Your task to perform on an android device: Empty the shopping cart on newegg.com. Search for "rayovac triple a" on newegg.com, select the first entry, and add it to the cart. Image 0: 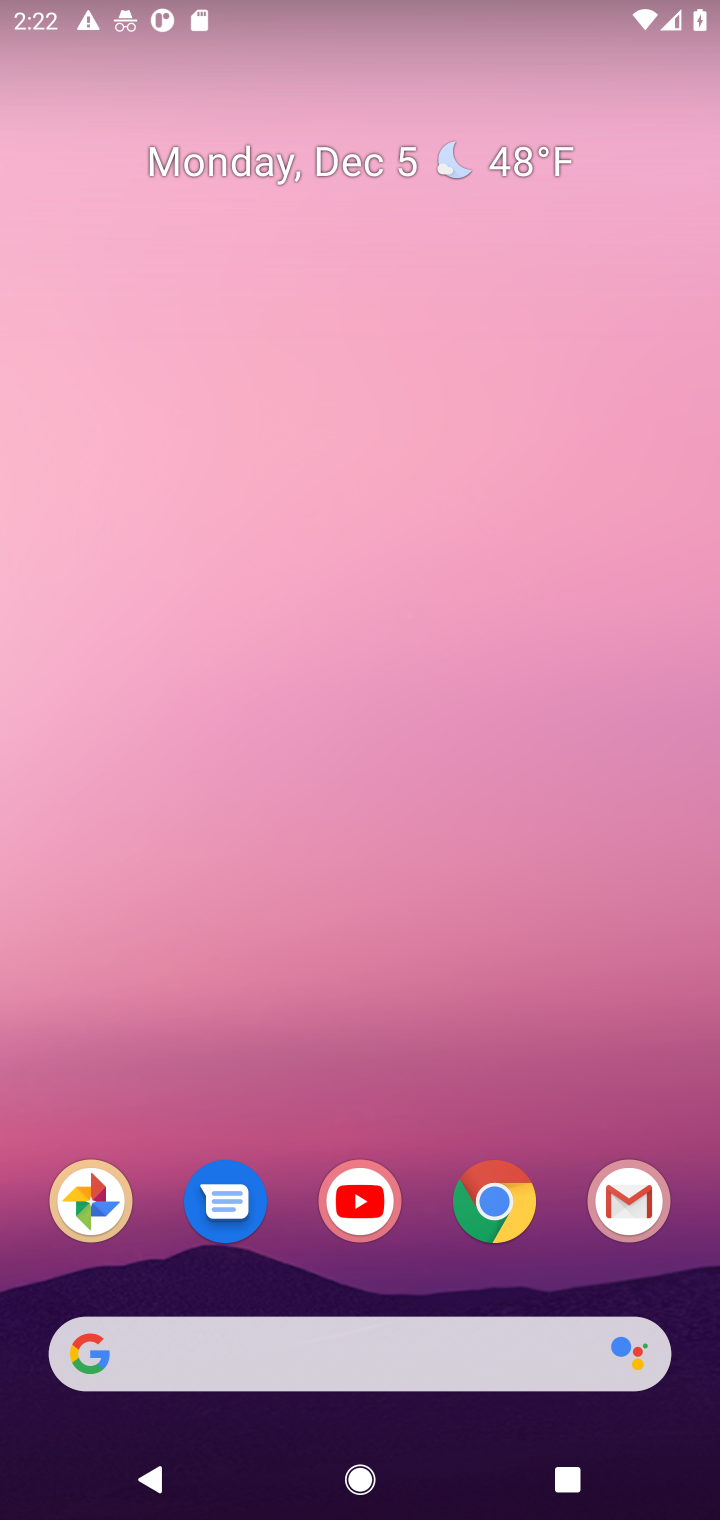
Step 0: click (517, 1211)
Your task to perform on an android device: Empty the shopping cart on newegg.com. Search for "rayovac triple a" on newegg.com, select the first entry, and add it to the cart. Image 1: 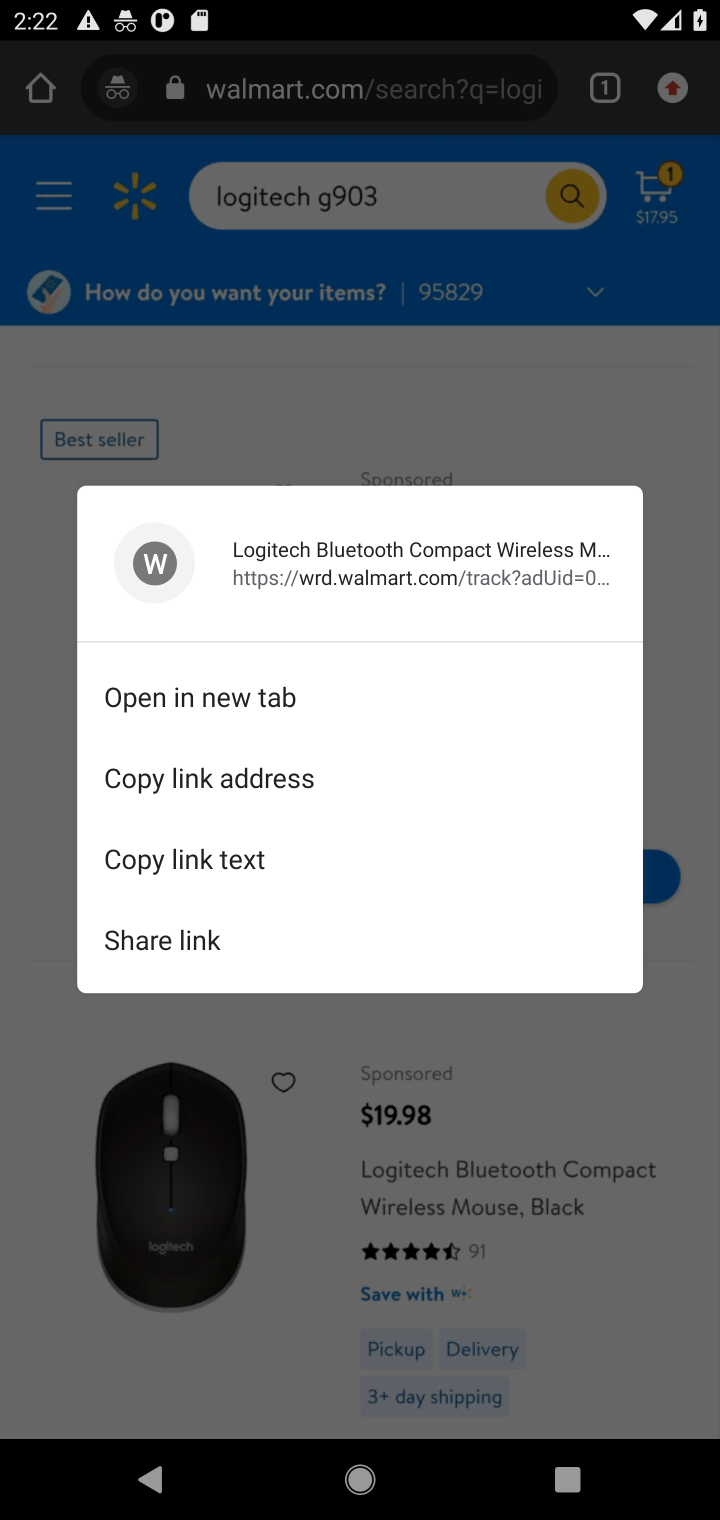
Step 1: click (536, 386)
Your task to perform on an android device: Empty the shopping cart on newegg.com. Search for "rayovac triple a" on newegg.com, select the first entry, and add it to the cart. Image 2: 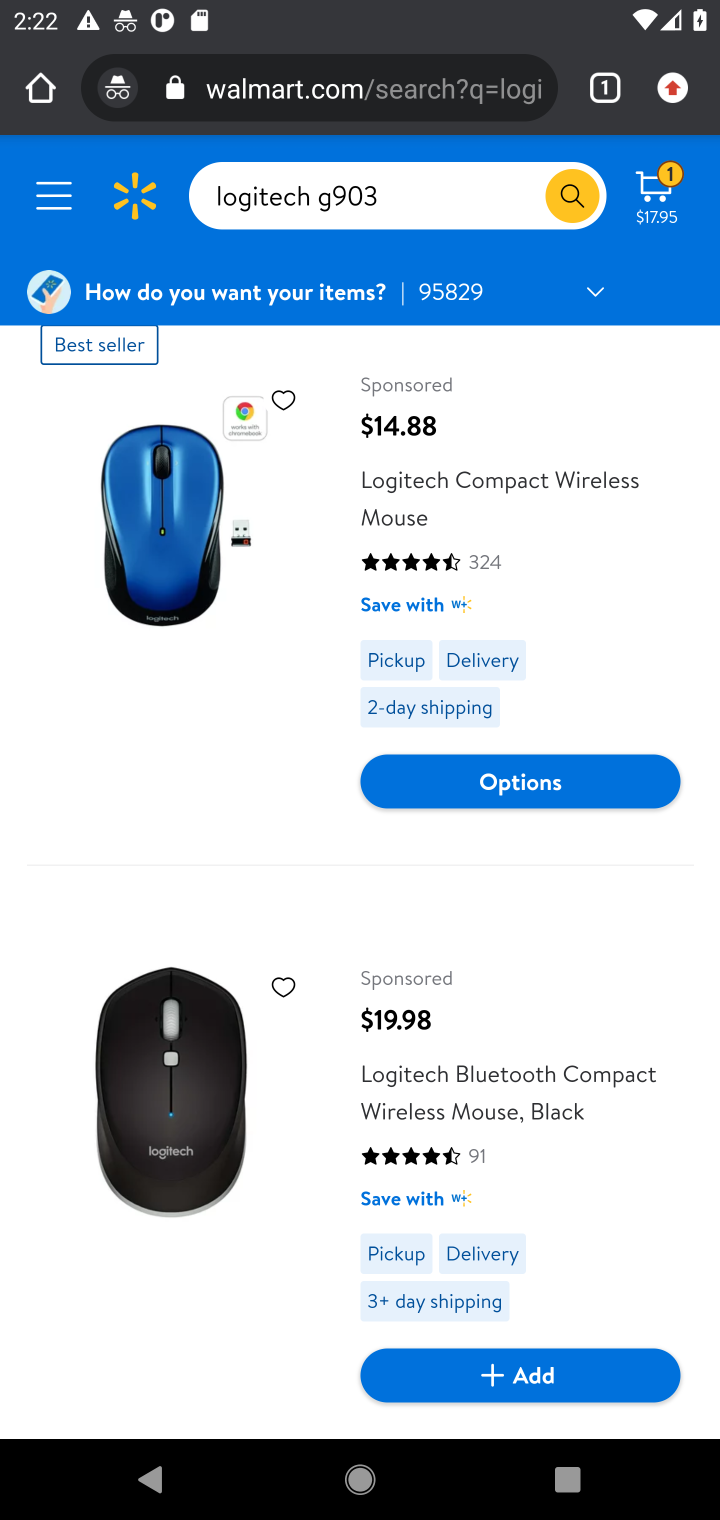
Step 2: click (381, 85)
Your task to perform on an android device: Empty the shopping cart on newegg.com. Search for "rayovac triple a" on newegg.com, select the first entry, and add it to the cart. Image 3: 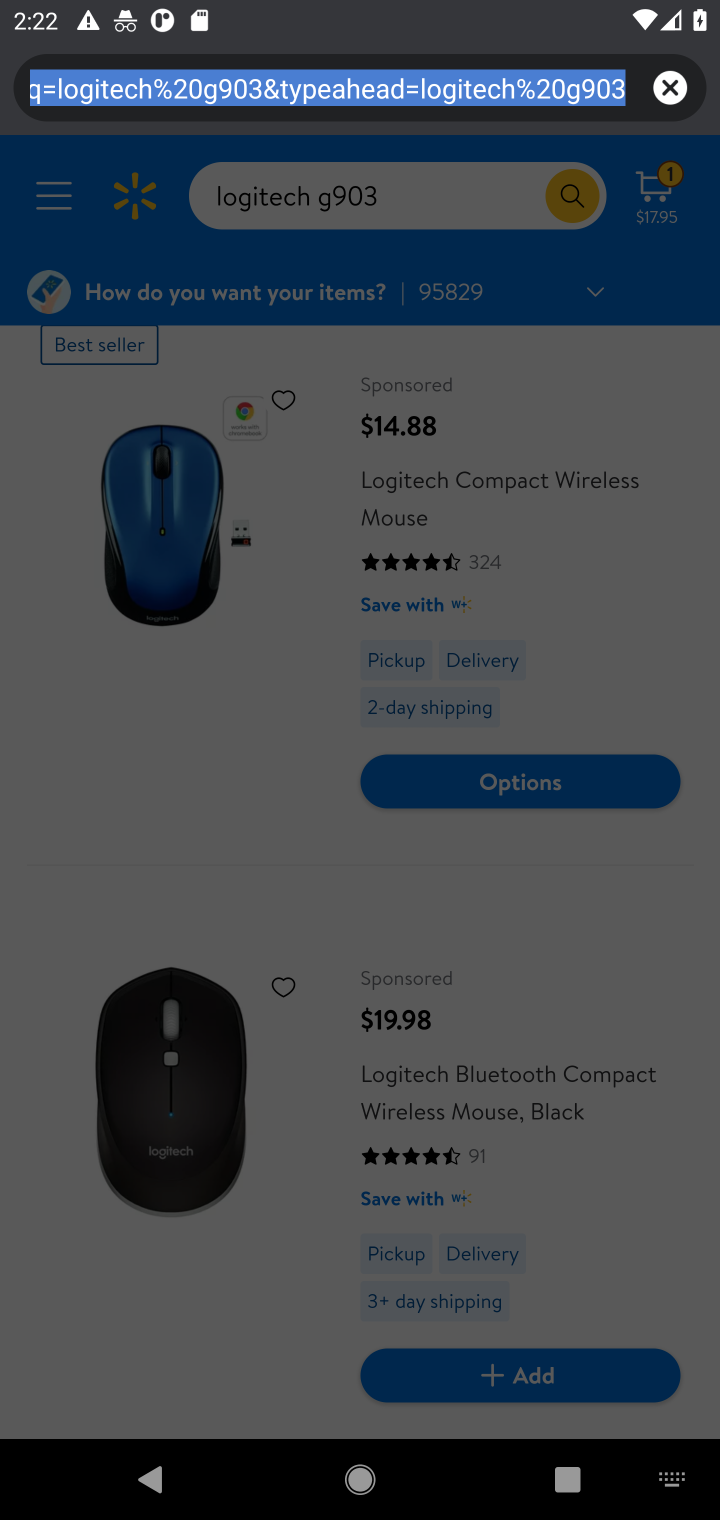
Step 3: click (644, 106)
Your task to perform on an android device: Empty the shopping cart on newegg.com. Search for "rayovac triple a" on newegg.com, select the first entry, and add it to the cart. Image 4: 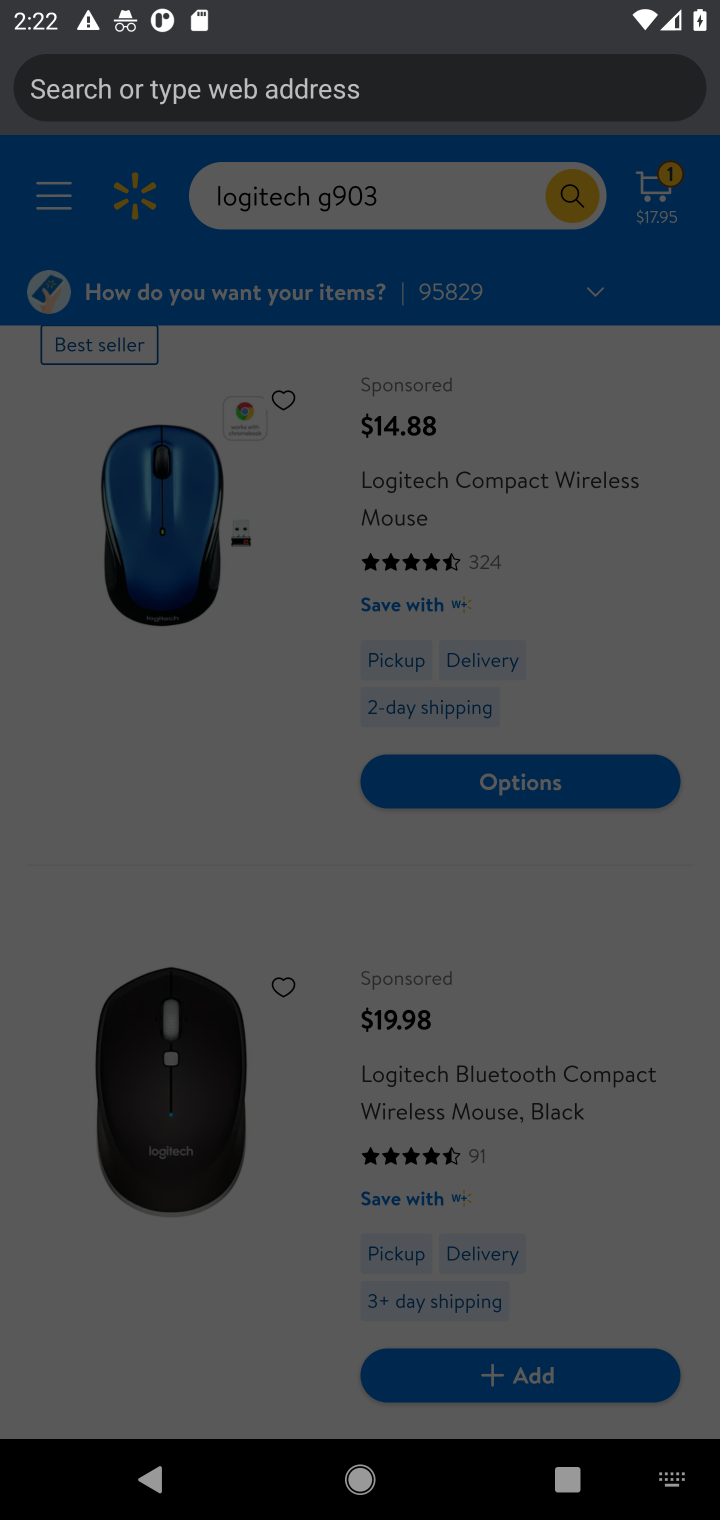
Step 4: type "newegg"
Your task to perform on an android device: Empty the shopping cart on newegg.com. Search for "rayovac triple a" on newegg.com, select the first entry, and add it to the cart. Image 5: 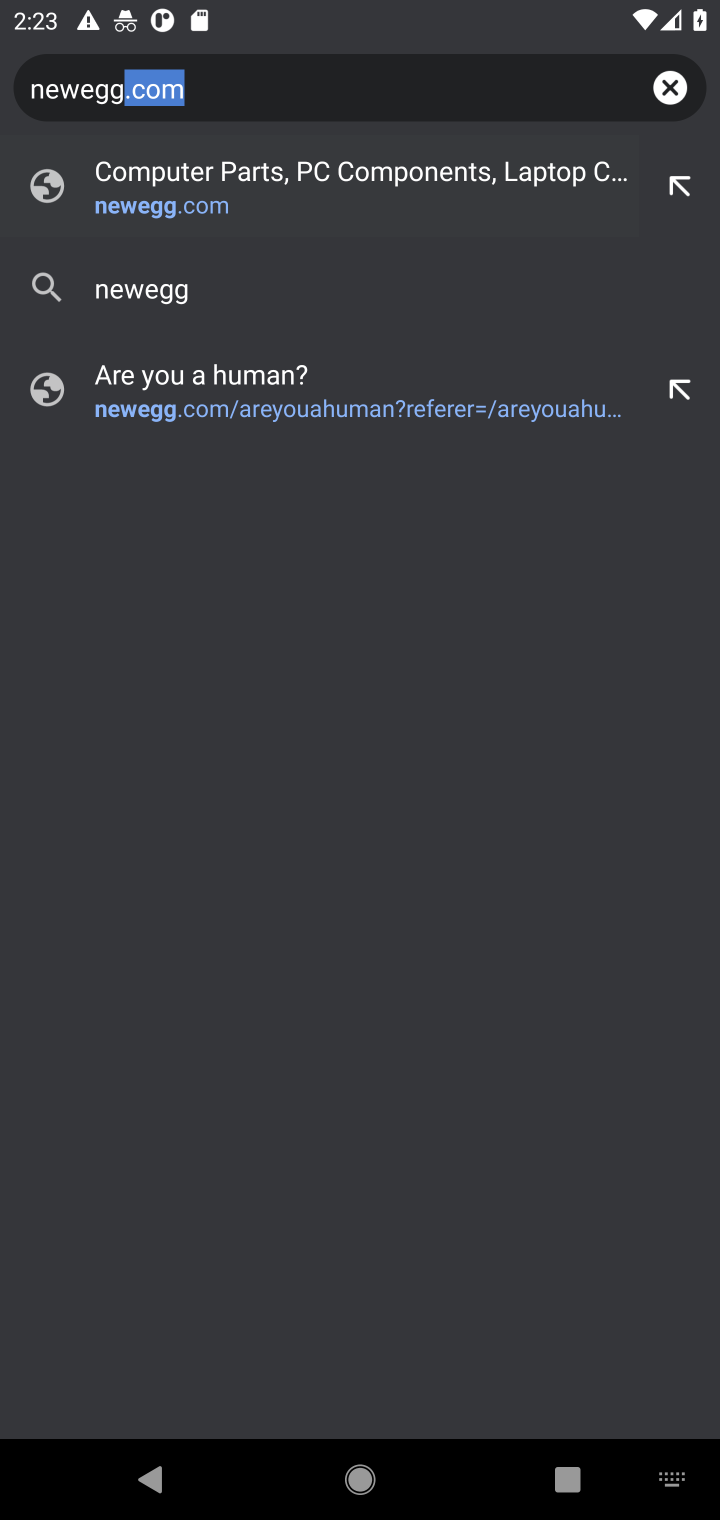
Step 5: click (148, 215)
Your task to perform on an android device: Empty the shopping cart on newegg.com. Search for "rayovac triple a" on newegg.com, select the first entry, and add it to the cart. Image 6: 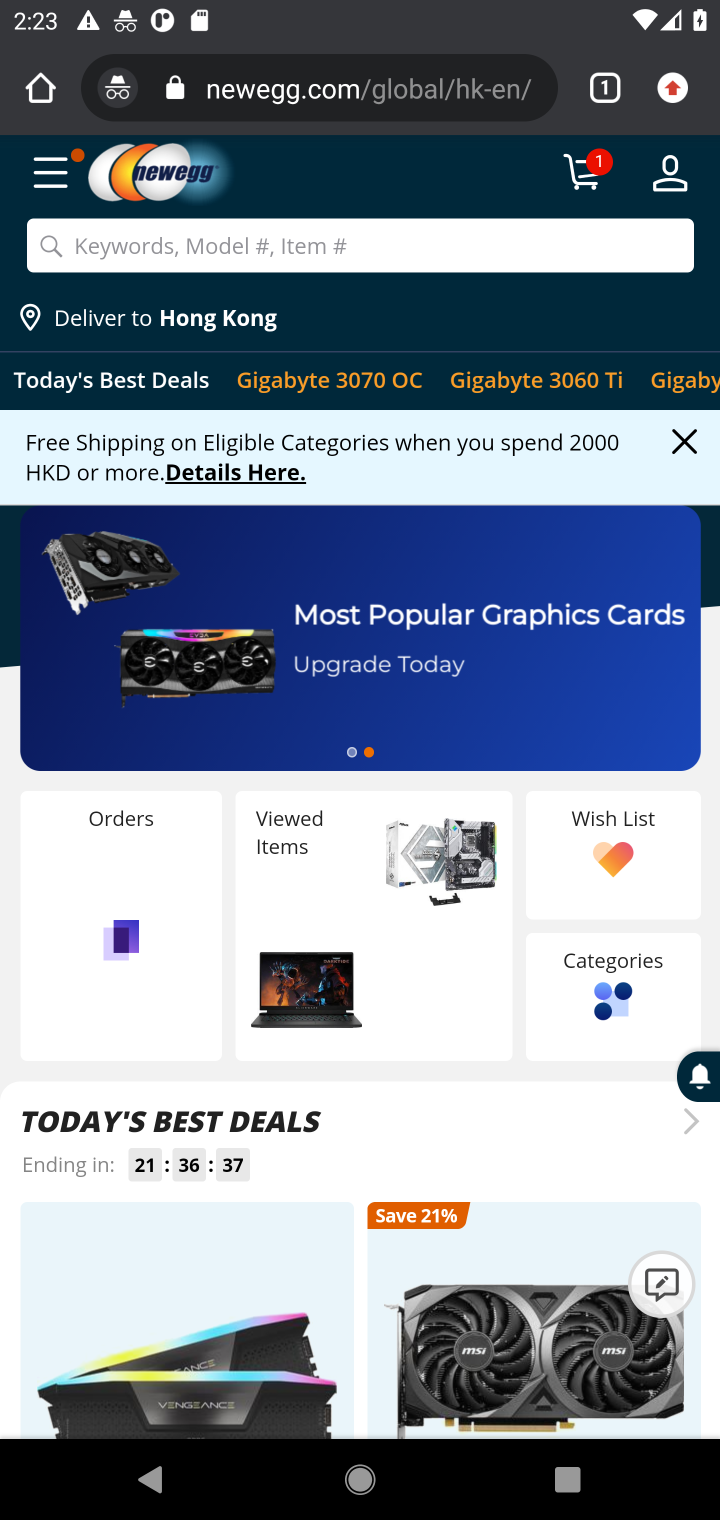
Step 6: click (601, 178)
Your task to perform on an android device: Empty the shopping cart on newegg.com. Search for "rayovac triple a" on newegg.com, select the first entry, and add it to the cart. Image 7: 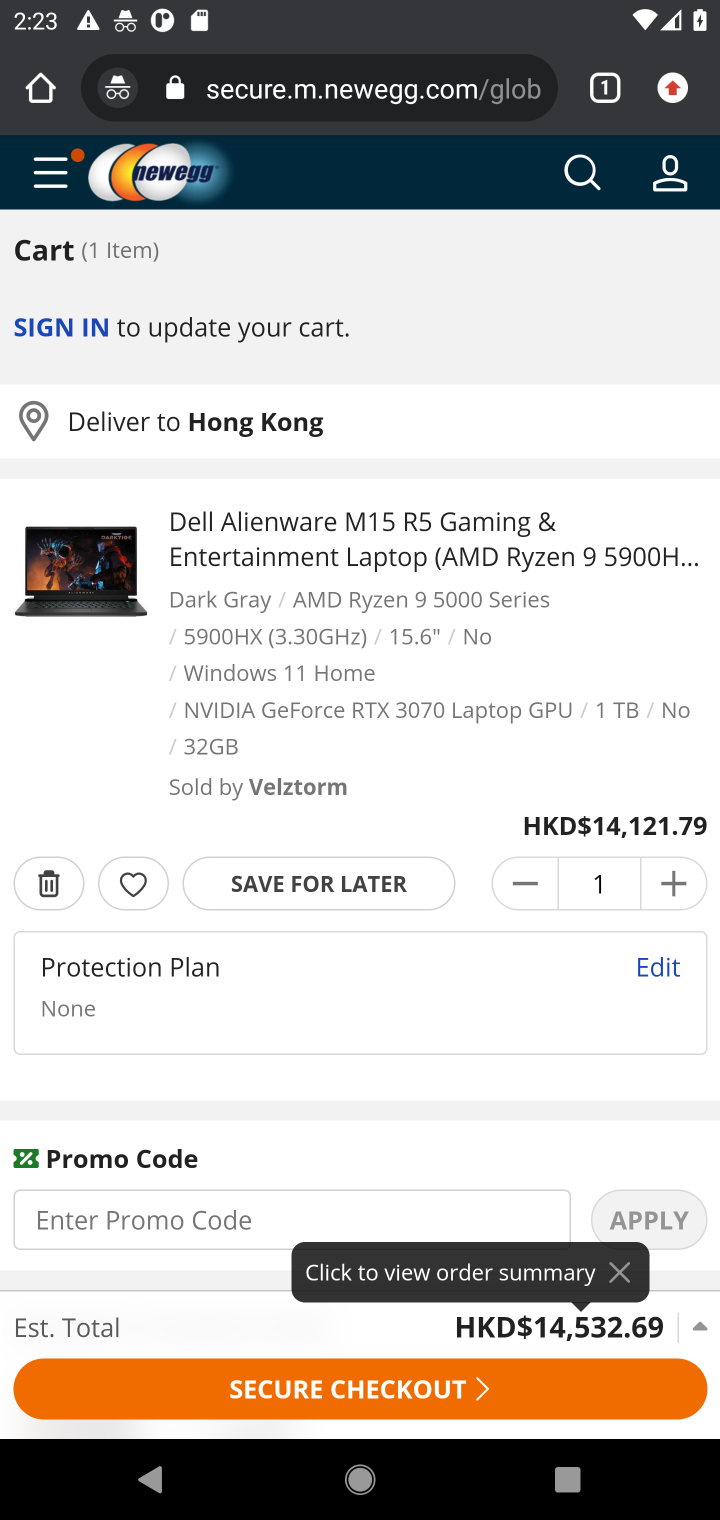
Step 7: click (58, 905)
Your task to perform on an android device: Empty the shopping cart on newegg.com. Search for "rayovac triple a" on newegg.com, select the first entry, and add it to the cart. Image 8: 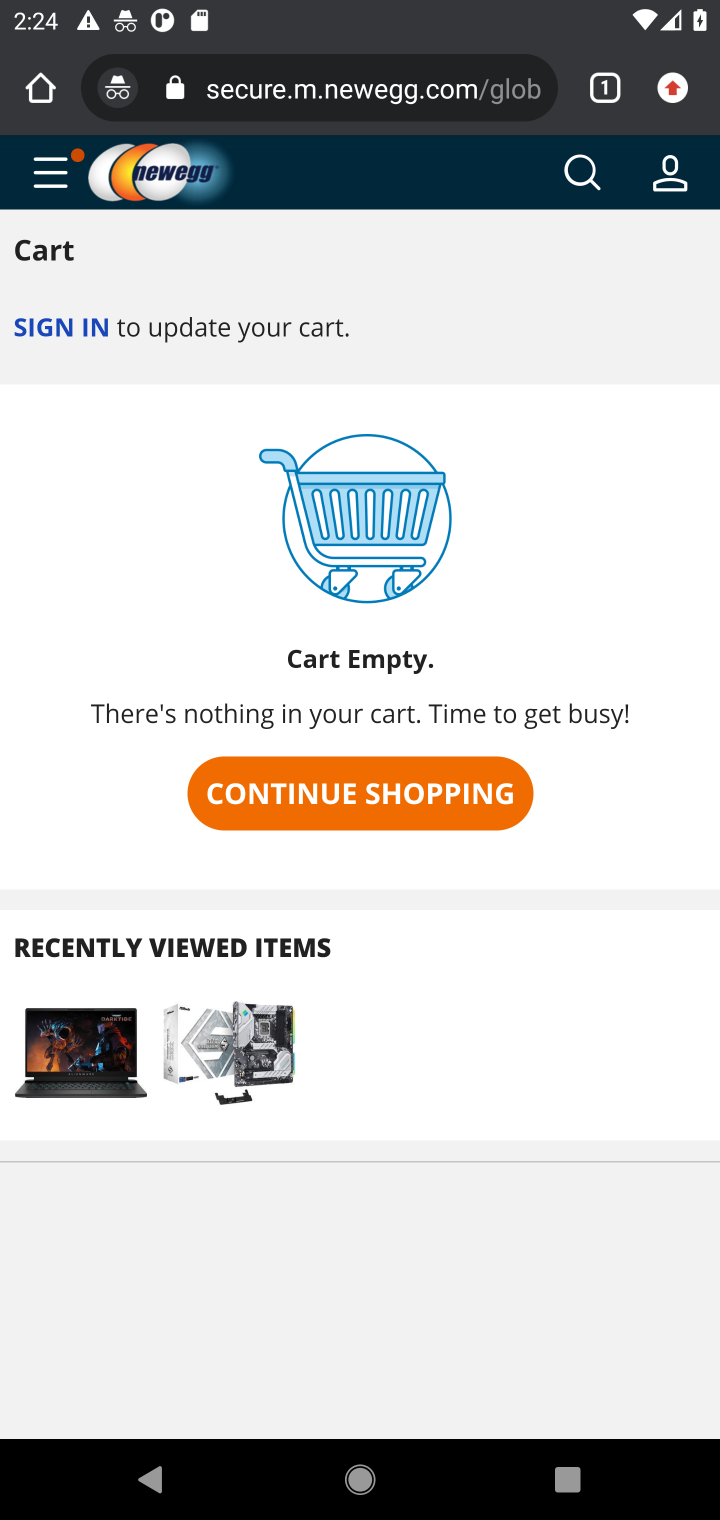
Step 8: click (435, 819)
Your task to perform on an android device: Empty the shopping cart on newegg.com. Search for "rayovac triple a" on newegg.com, select the first entry, and add it to the cart. Image 9: 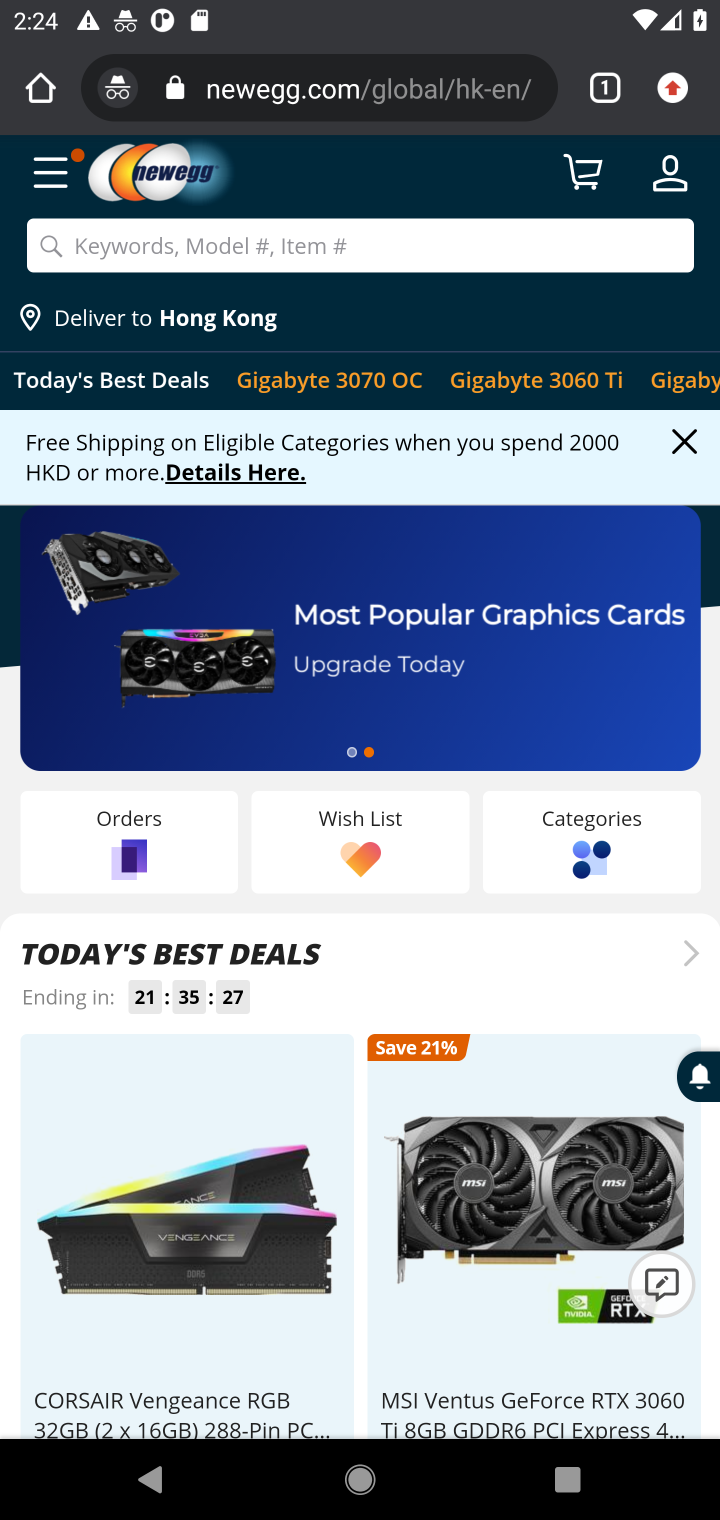
Step 9: click (500, 230)
Your task to perform on an android device: Empty the shopping cart on newegg.com. Search for "rayovac triple a" on newegg.com, select the first entry, and add it to the cart. Image 10: 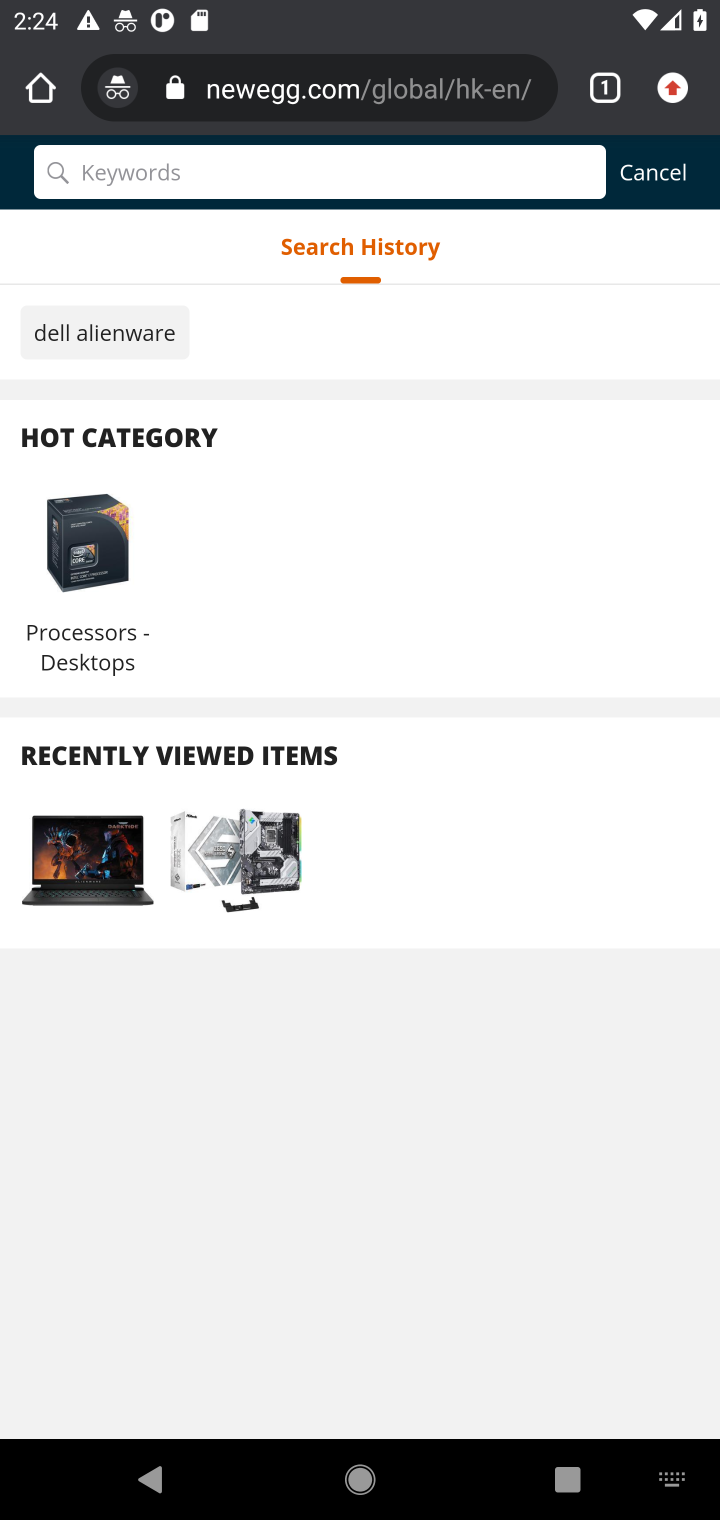
Step 10: click (289, 238)
Your task to perform on an android device: Empty the shopping cart on newegg.com. Search for "rayovac triple a" on newegg.com, select the first entry, and add it to the cart. Image 11: 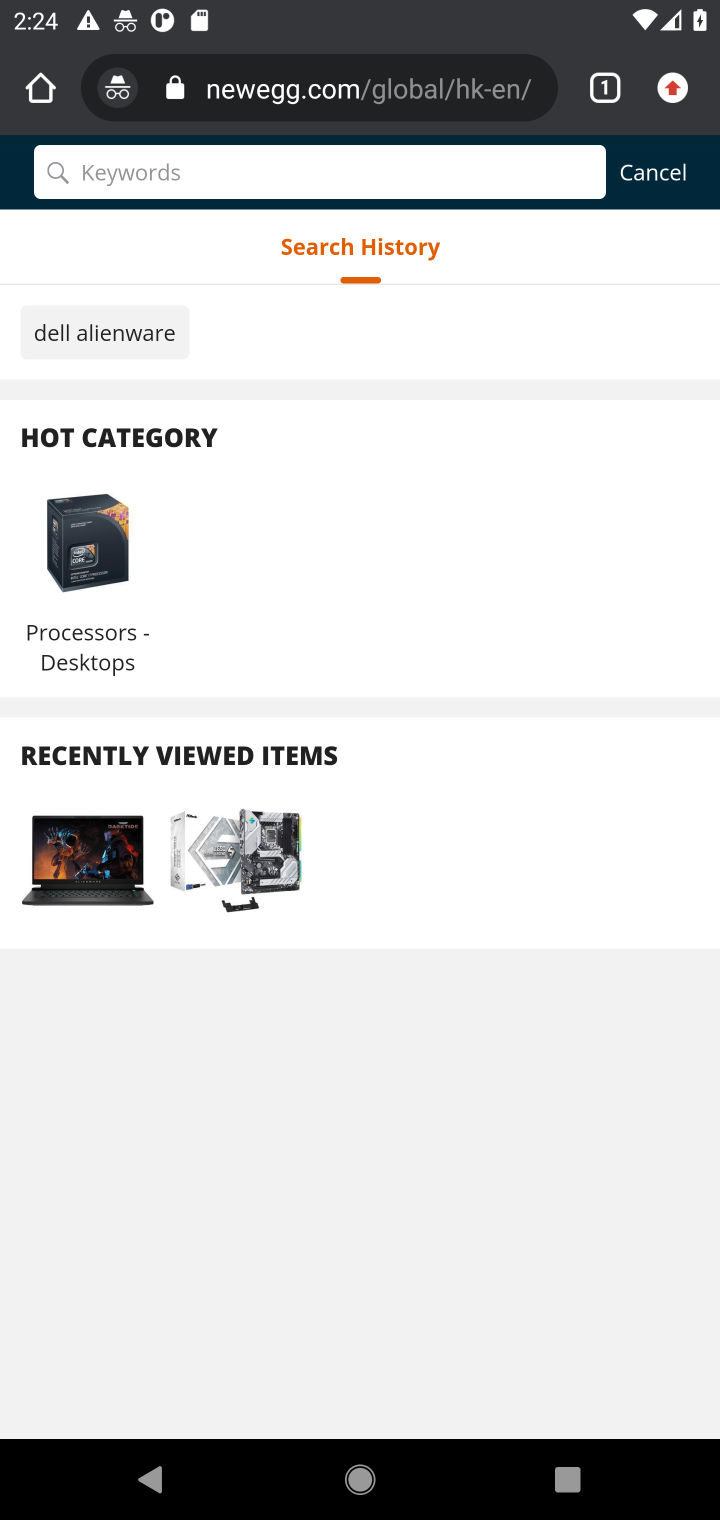
Step 11: type "rayovac triple a"
Your task to perform on an android device: Empty the shopping cart on newegg.com. Search for "rayovac triple a" on newegg.com, select the first entry, and add it to the cart. Image 12: 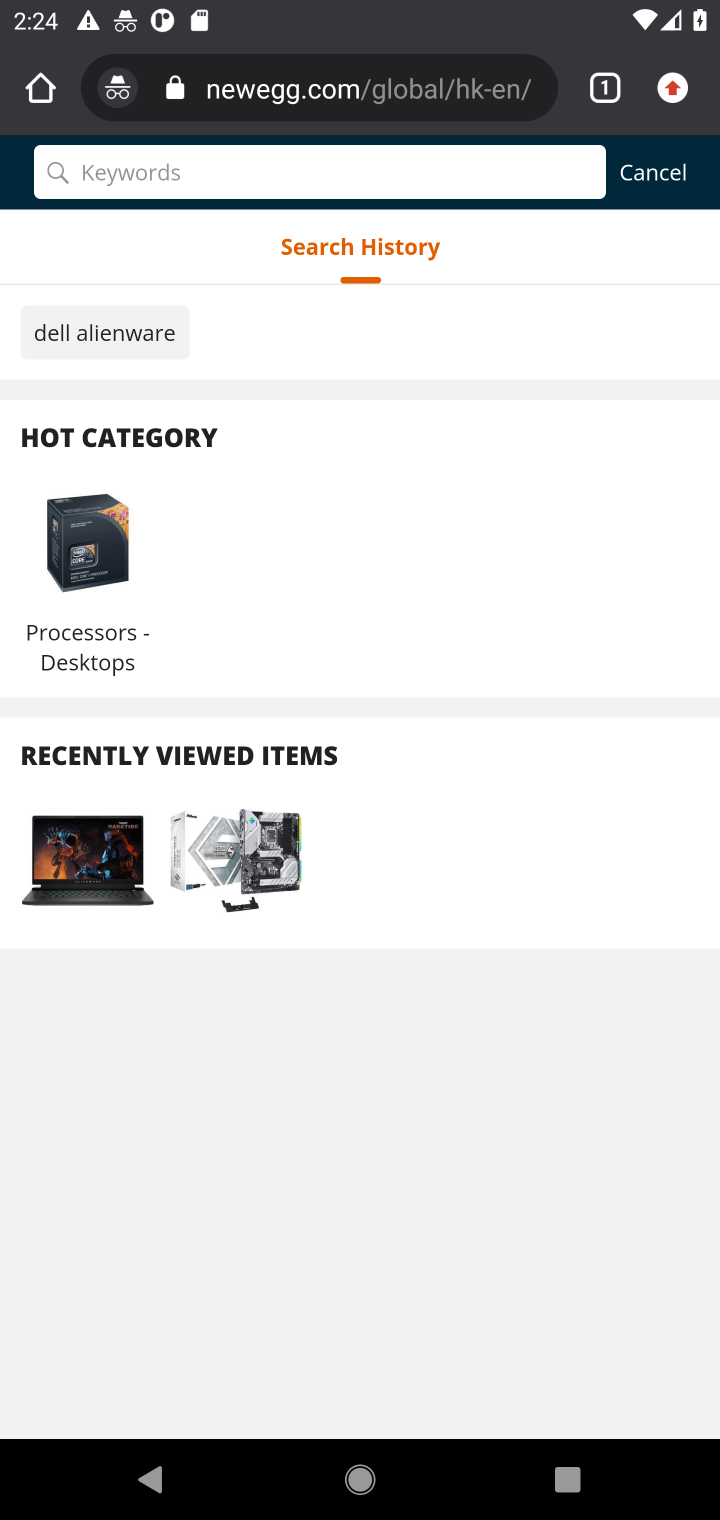
Step 12: click (360, 173)
Your task to perform on an android device: Empty the shopping cart on newegg.com. Search for "rayovac triple a" on newegg.com, select the first entry, and add it to the cart. Image 13: 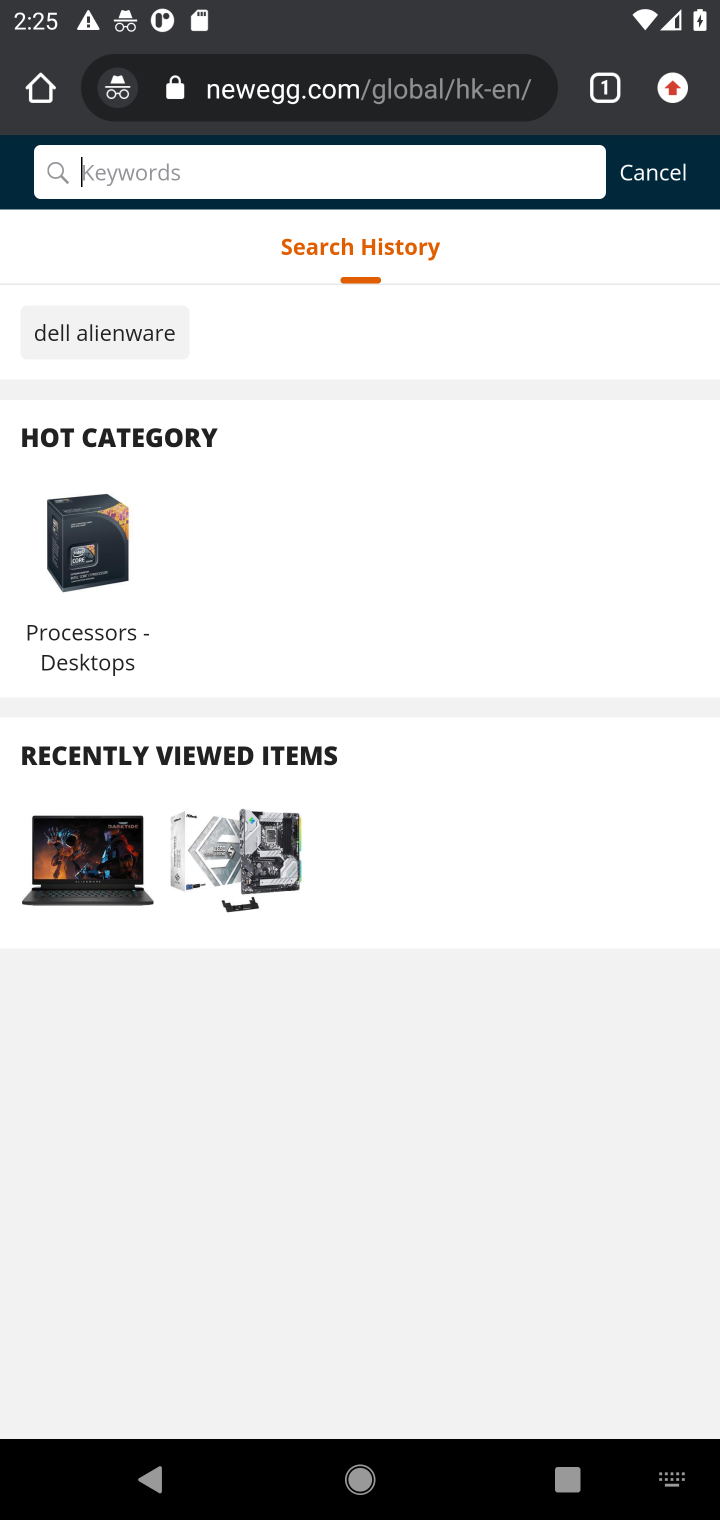
Step 13: type "rayovac triple a"
Your task to perform on an android device: Empty the shopping cart on newegg.com. Search for "rayovac triple a" on newegg.com, select the first entry, and add it to the cart. Image 14: 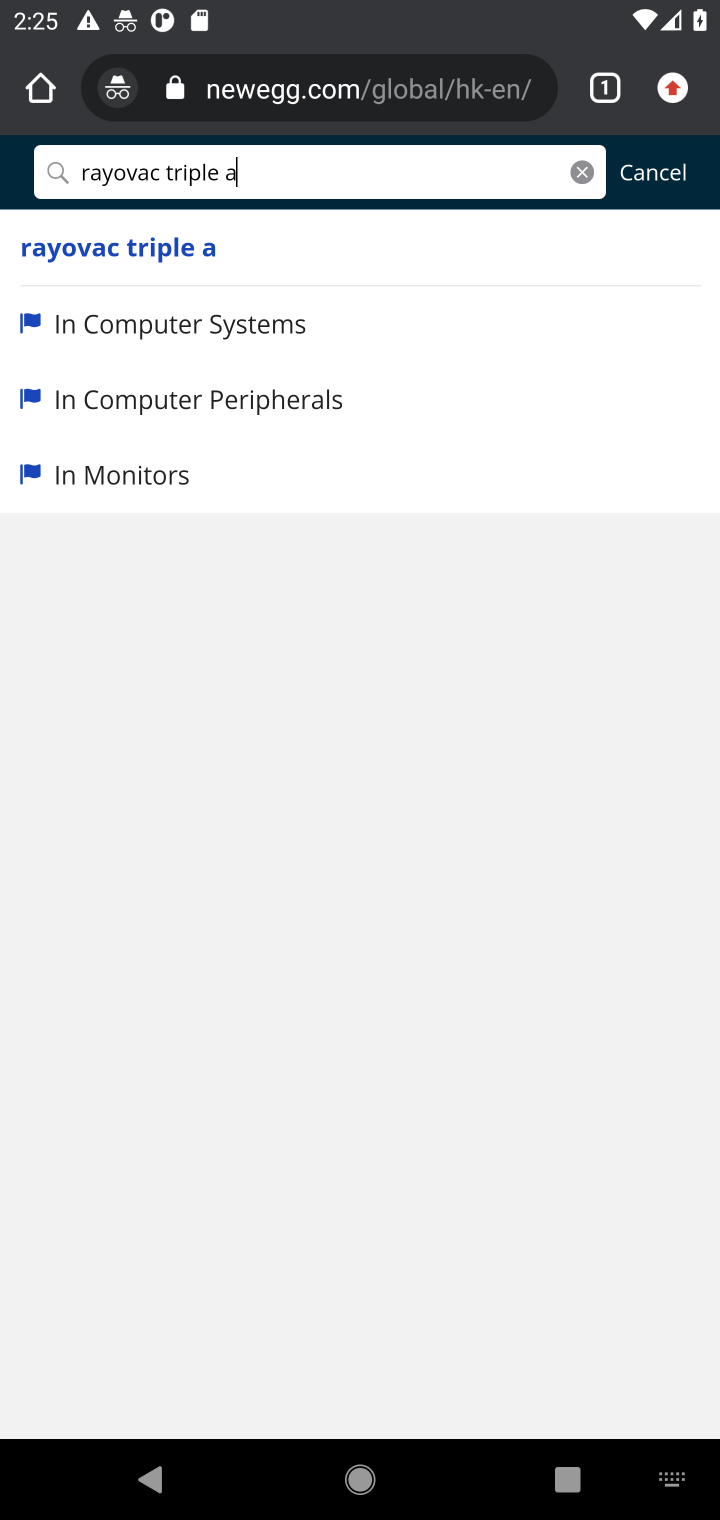
Step 14: click (186, 237)
Your task to perform on an android device: Empty the shopping cart on newegg.com. Search for "rayovac triple a" on newegg.com, select the first entry, and add it to the cart. Image 15: 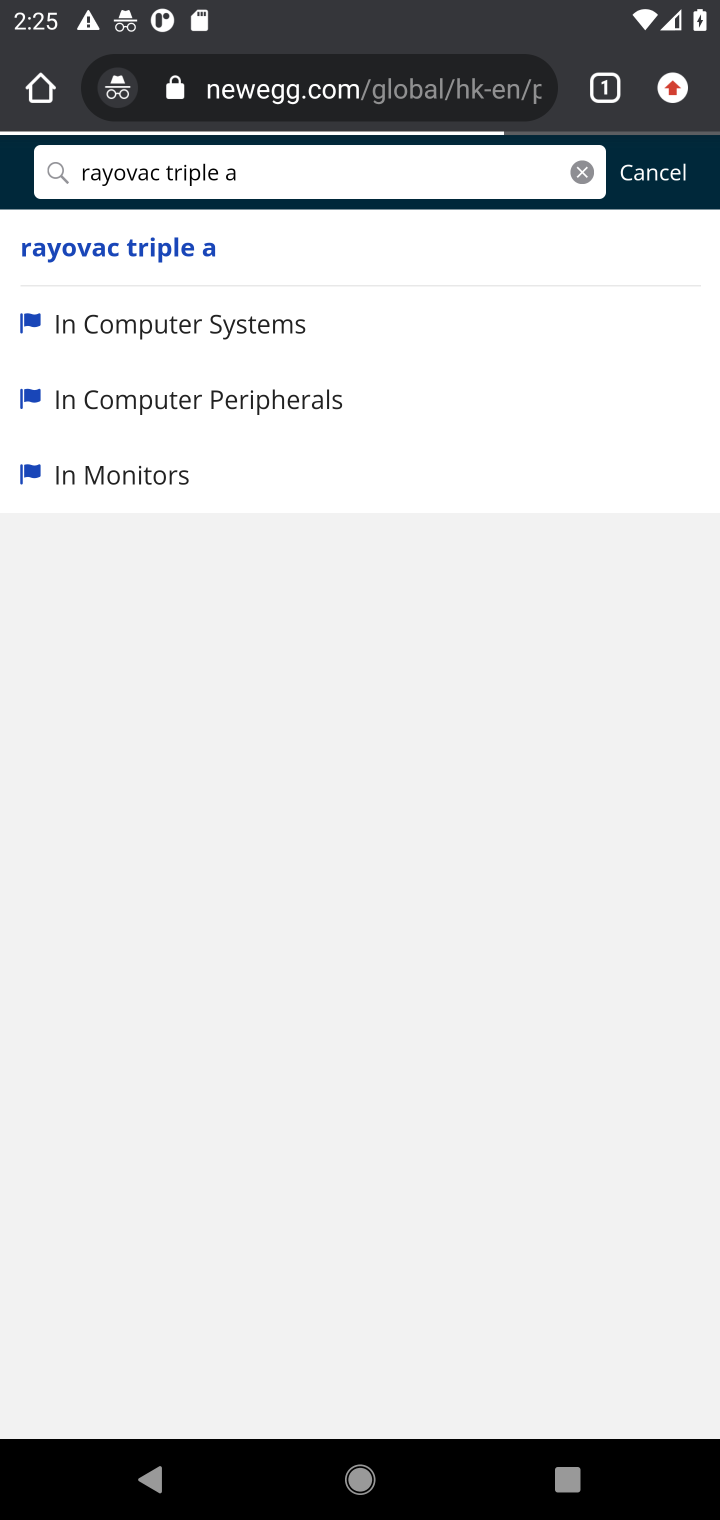
Step 15: click (186, 237)
Your task to perform on an android device: Empty the shopping cart on newegg.com. Search for "rayovac triple a" on newegg.com, select the first entry, and add it to the cart. Image 16: 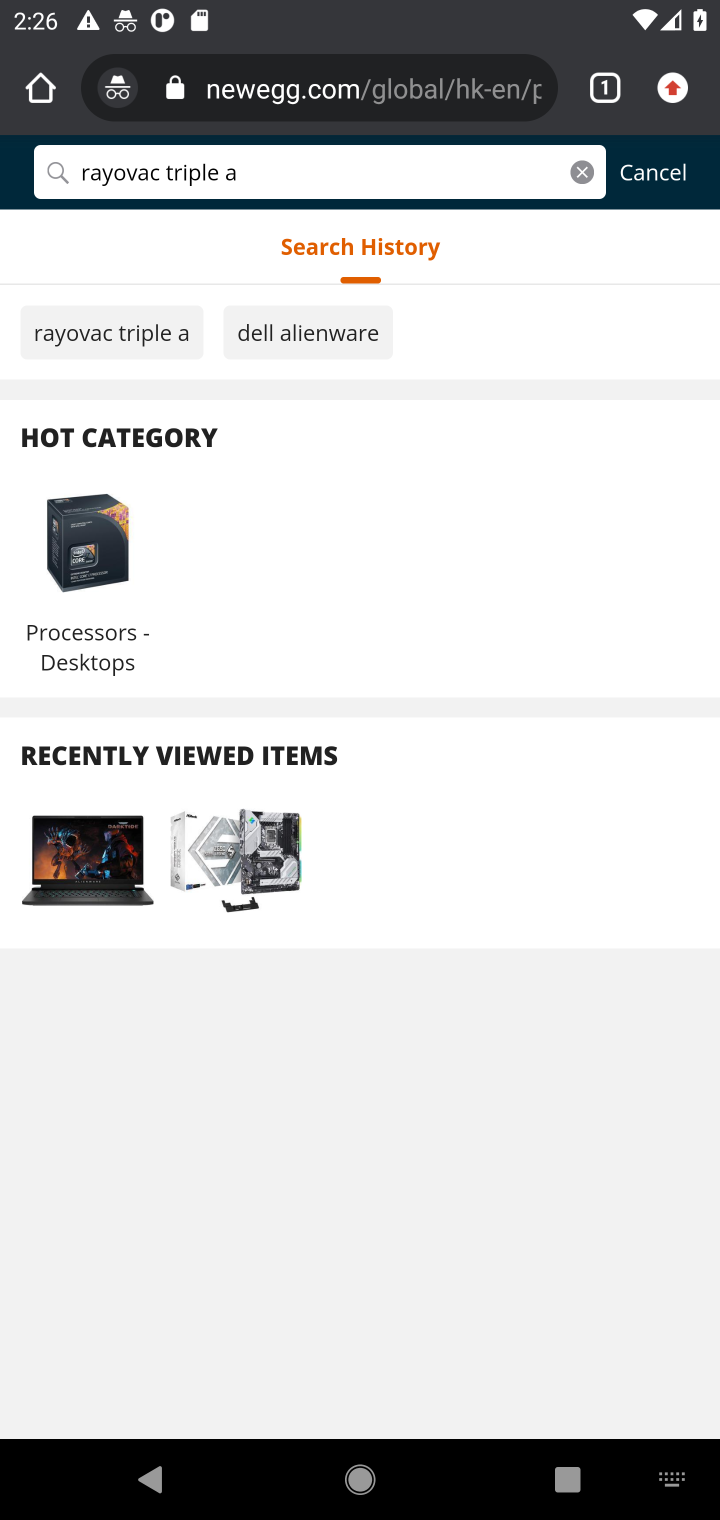
Step 16: task complete